Your task to perform on an android device: toggle airplane mode Image 0: 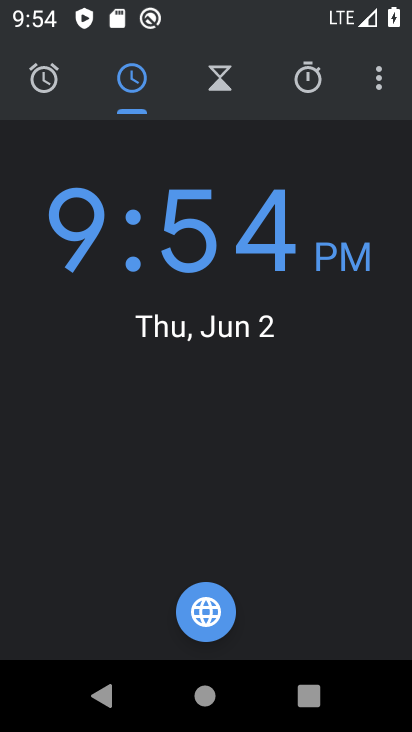
Step 0: press home button
Your task to perform on an android device: toggle airplane mode Image 1: 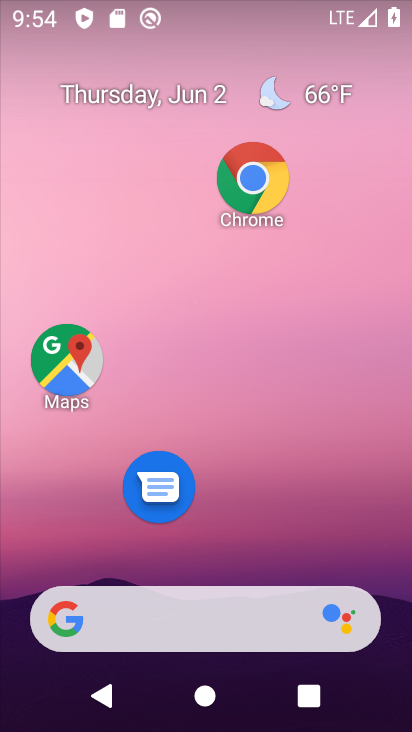
Step 1: drag from (236, 725) to (226, 75)
Your task to perform on an android device: toggle airplane mode Image 2: 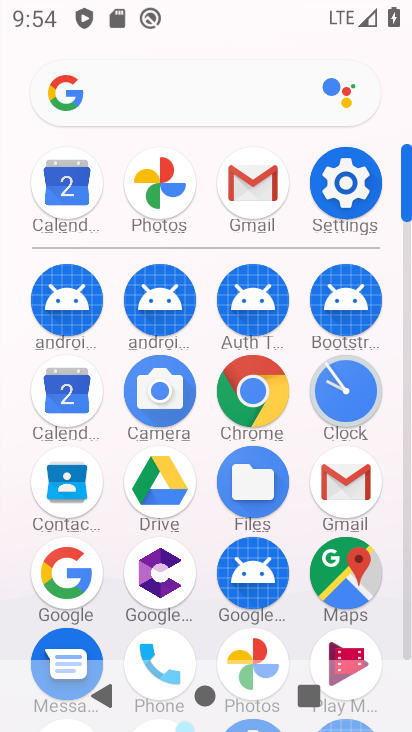
Step 2: click (341, 186)
Your task to perform on an android device: toggle airplane mode Image 3: 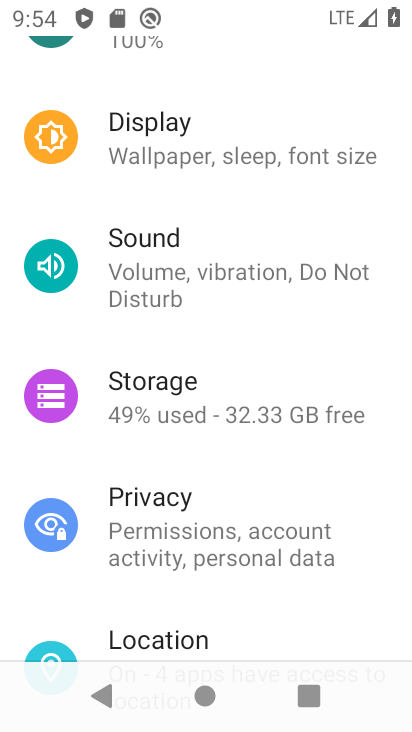
Step 3: drag from (283, 121) to (242, 589)
Your task to perform on an android device: toggle airplane mode Image 4: 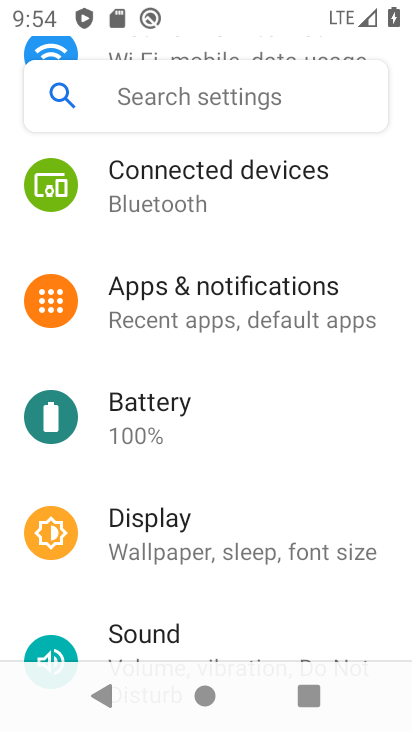
Step 4: drag from (271, 154) to (270, 595)
Your task to perform on an android device: toggle airplane mode Image 5: 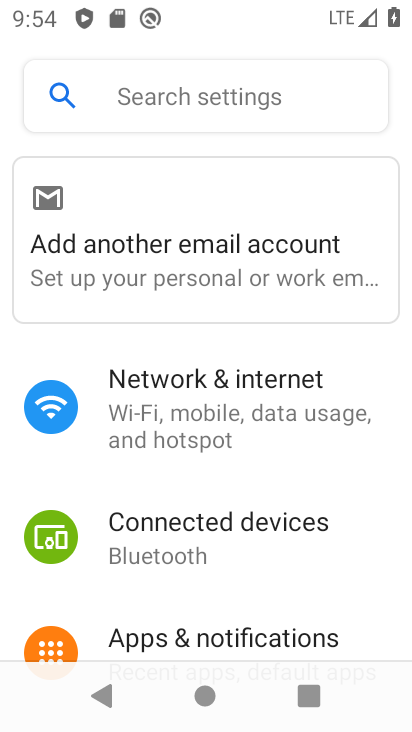
Step 5: click (182, 411)
Your task to perform on an android device: toggle airplane mode Image 6: 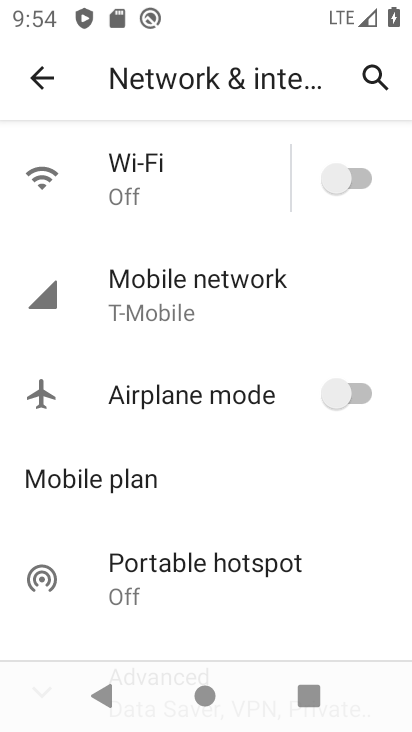
Step 6: click (361, 401)
Your task to perform on an android device: toggle airplane mode Image 7: 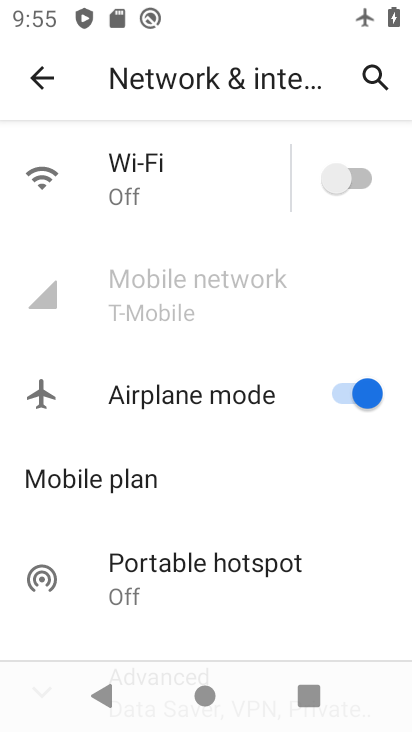
Step 7: task complete